Your task to perform on an android device: Look up the best rated coffee table on Ikea Image 0: 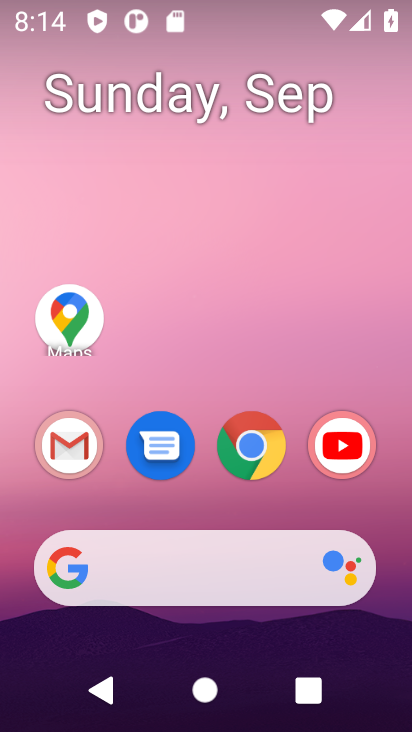
Step 0: drag from (209, 546) to (279, 3)
Your task to perform on an android device: Look up the best rated coffee table on Ikea Image 1: 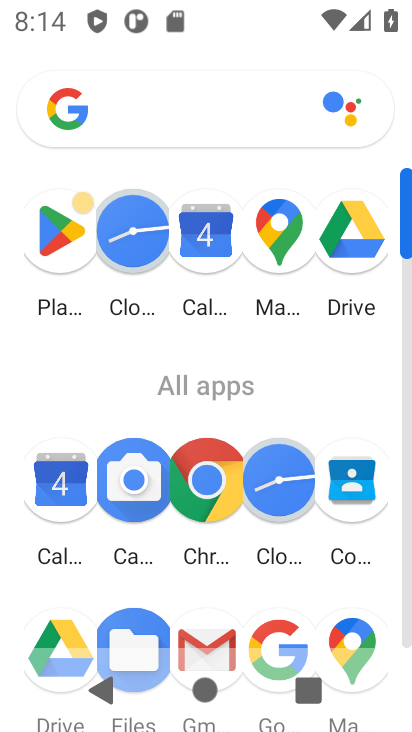
Step 1: click (222, 499)
Your task to perform on an android device: Look up the best rated coffee table on Ikea Image 2: 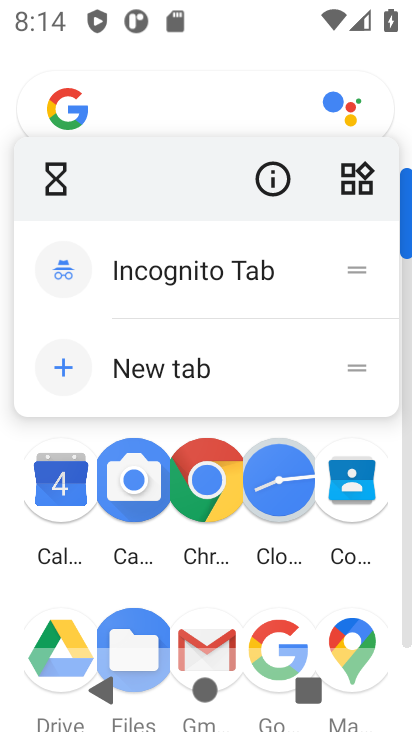
Step 2: click (213, 489)
Your task to perform on an android device: Look up the best rated coffee table on Ikea Image 3: 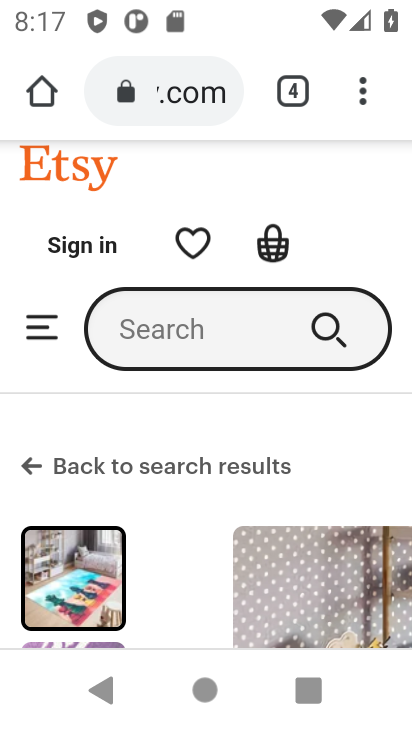
Step 3: task complete